Your task to perform on an android device: turn smart compose on in the gmail app Image 0: 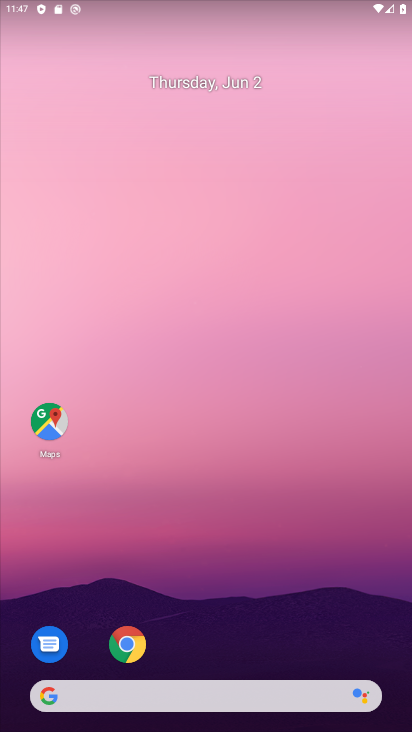
Step 0: drag from (258, 728) to (351, 8)
Your task to perform on an android device: turn smart compose on in the gmail app Image 1: 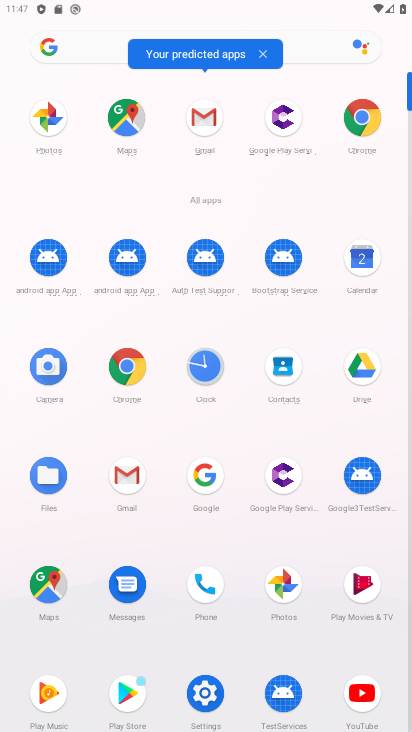
Step 1: click (132, 480)
Your task to perform on an android device: turn smart compose on in the gmail app Image 2: 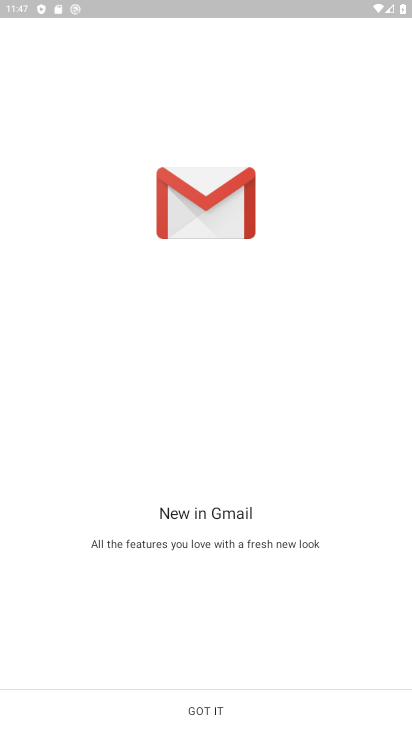
Step 2: click (208, 699)
Your task to perform on an android device: turn smart compose on in the gmail app Image 3: 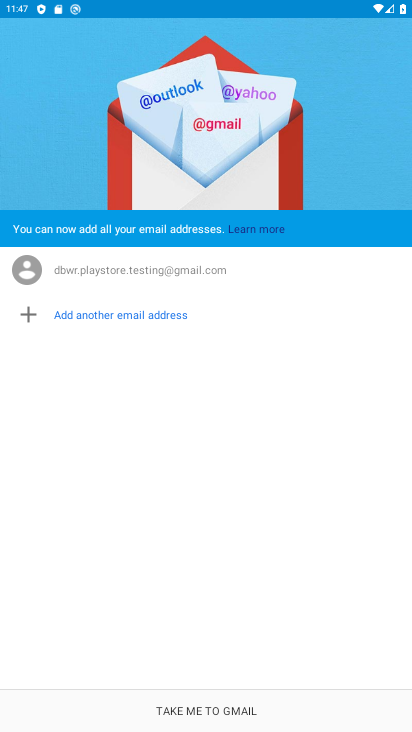
Step 3: click (211, 708)
Your task to perform on an android device: turn smart compose on in the gmail app Image 4: 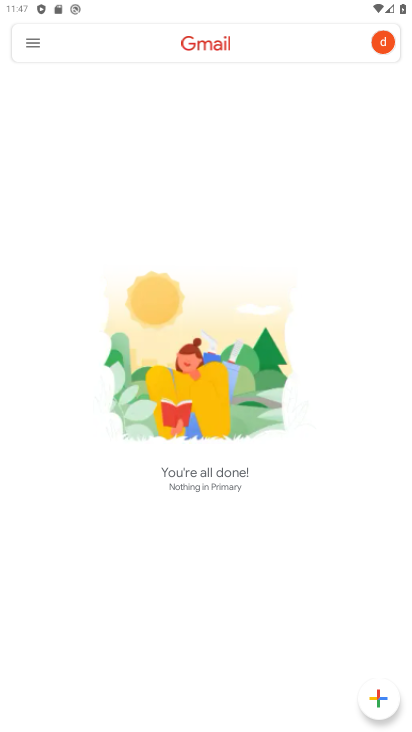
Step 4: click (30, 42)
Your task to perform on an android device: turn smart compose on in the gmail app Image 5: 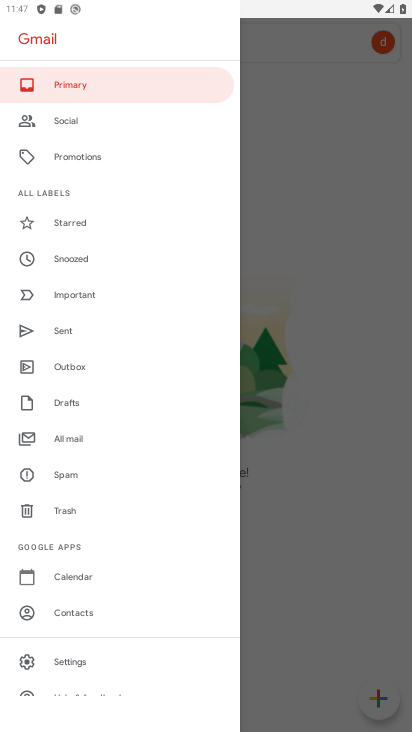
Step 5: click (69, 662)
Your task to perform on an android device: turn smart compose on in the gmail app Image 6: 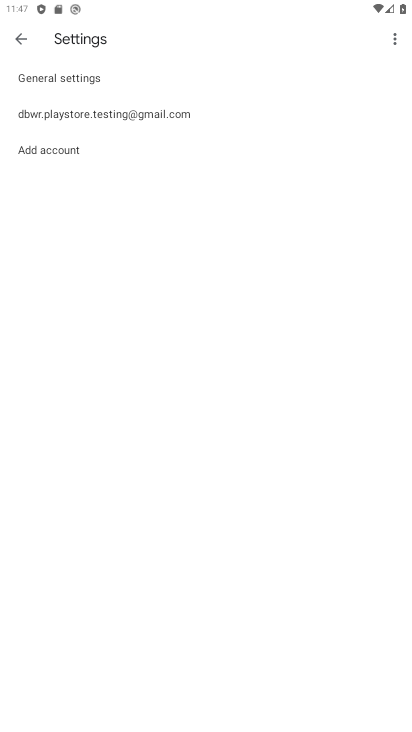
Step 6: click (146, 109)
Your task to perform on an android device: turn smart compose on in the gmail app Image 7: 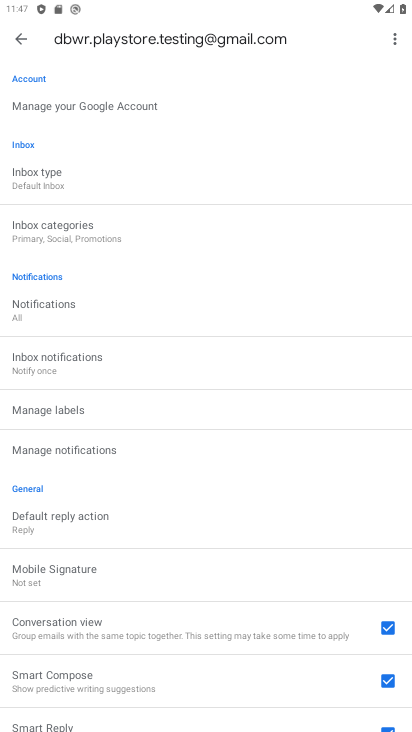
Step 7: task complete